Your task to perform on an android device: refresh tabs in the chrome app Image 0: 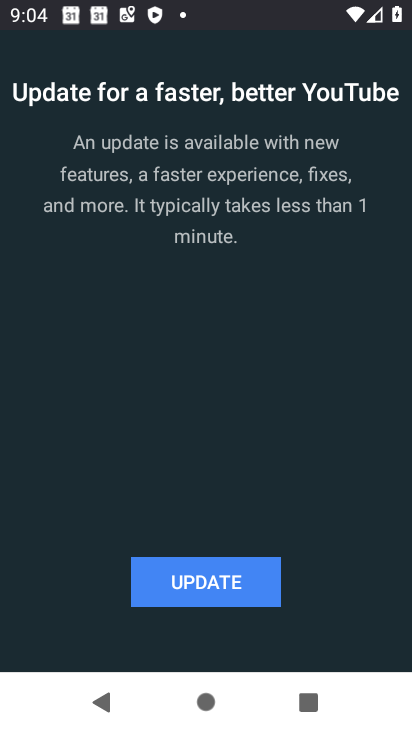
Step 0: press home button
Your task to perform on an android device: refresh tabs in the chrome app Image 1: 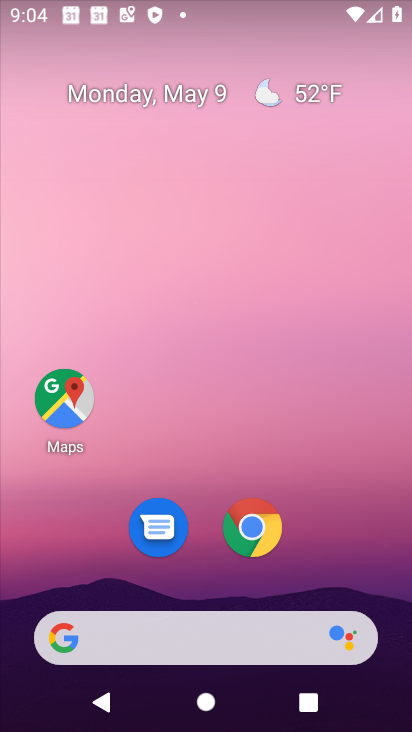
Step 1: click (254, 523)
Your task to perform on an android device: refresh tabs in the chrome app Image 2: 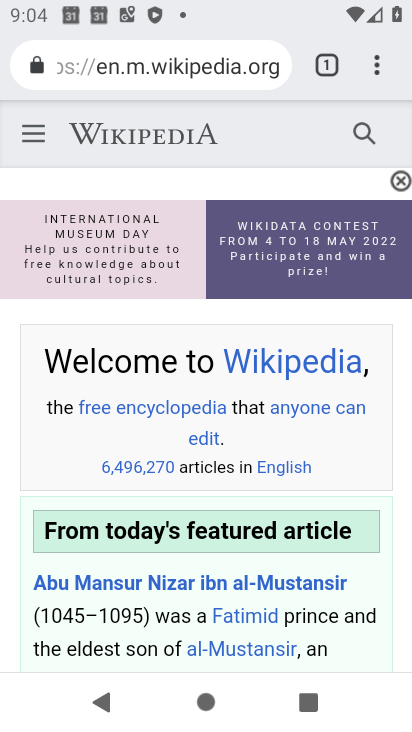
Step 2: click (373, 63)
Your task to perform on an android device: refresh tabs in the chrome app Image 3: 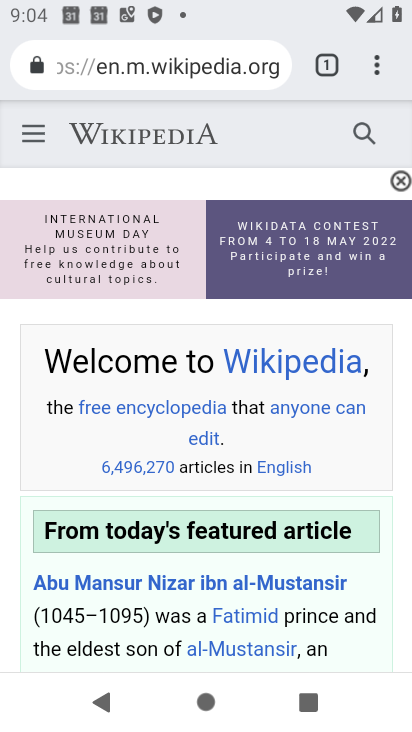
Step 3: click (374, 66)
Your task to perform on an android device: refresh tabs in the chrome app Image 4: 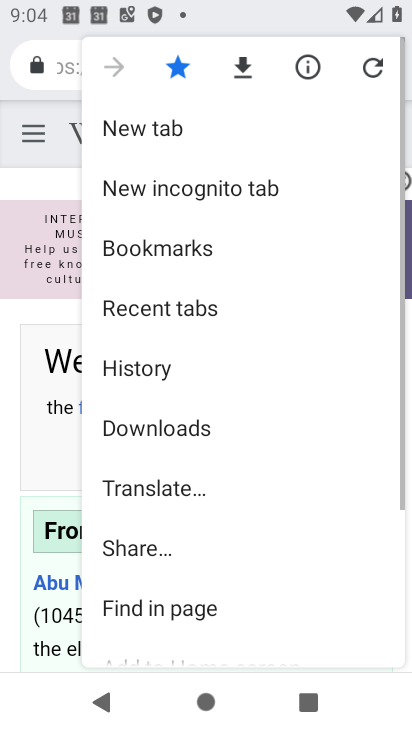
Step 4: click (374, 67)
Your task to perform on an android device: refresh tabs in the chrome app Image 5: 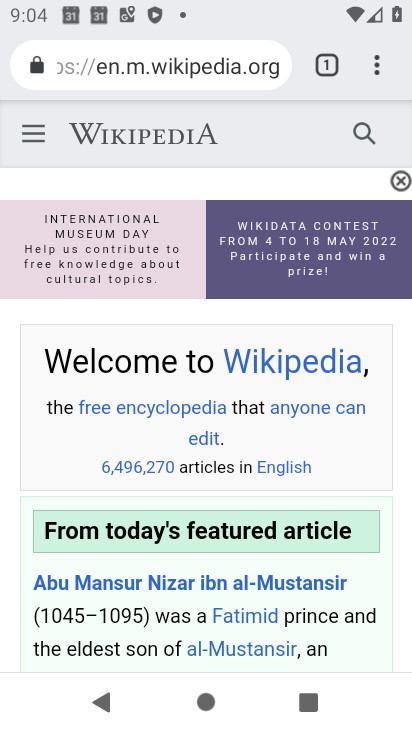
Step 5: task complete